Your task to perform on an android device: Open notification settings Image 0: 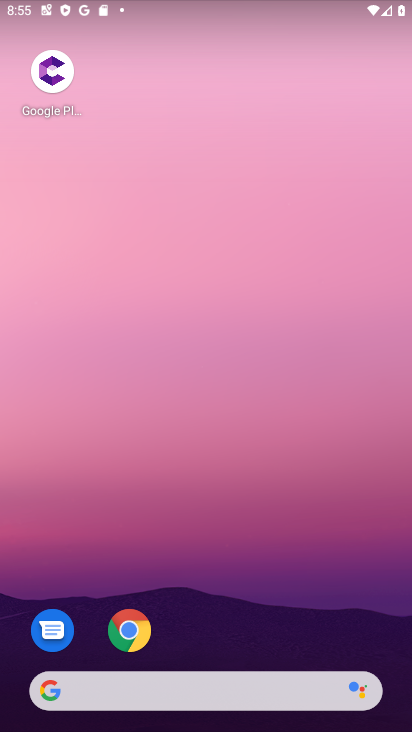
Step 0: drag from (204, 660) to (205, 112)
Your task to perform on an android device: Open notification settings Image 1: 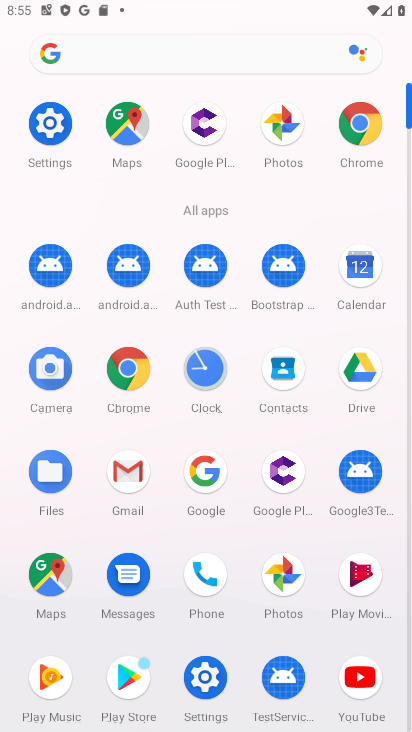
Step 1: click (52, 121)
Your task to perform on an android device: Open notification settings Image 2: 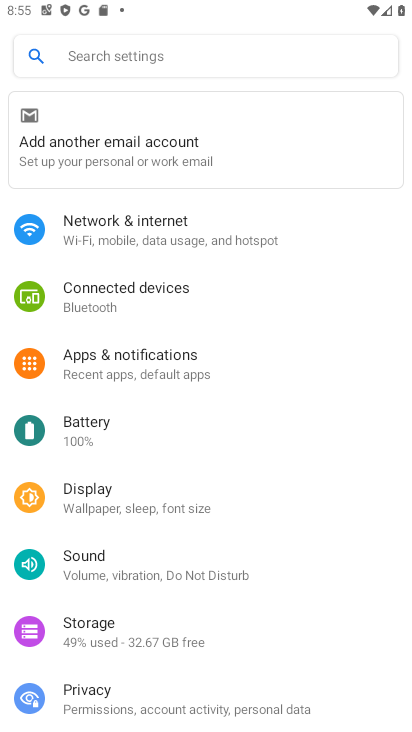
Step 2: click (147, 353)
Your task to perform on an android device: Open notification settings Image 3: 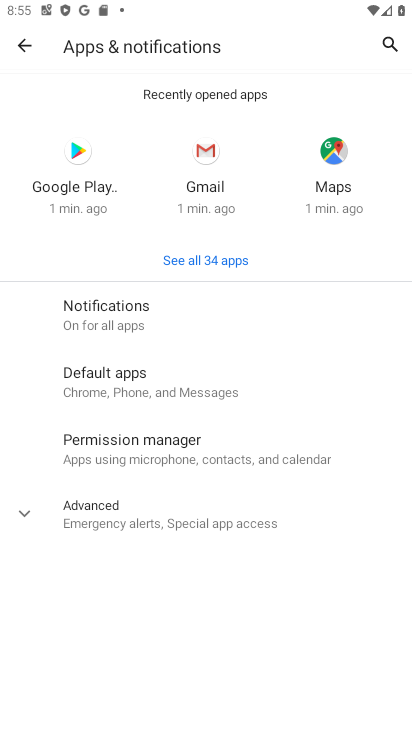
Step 3: click (115, 312)
Your task to perform on an android device: Open notification settings Image 4: 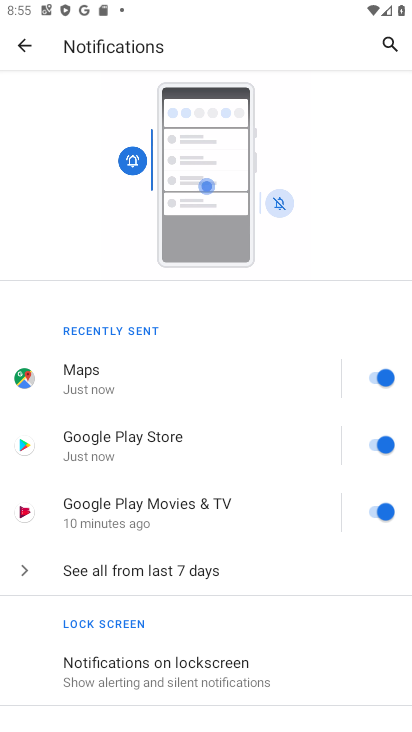
Step 4: task complete